Your task to perform on an android device: change notification settings in the gmail app Image 0: 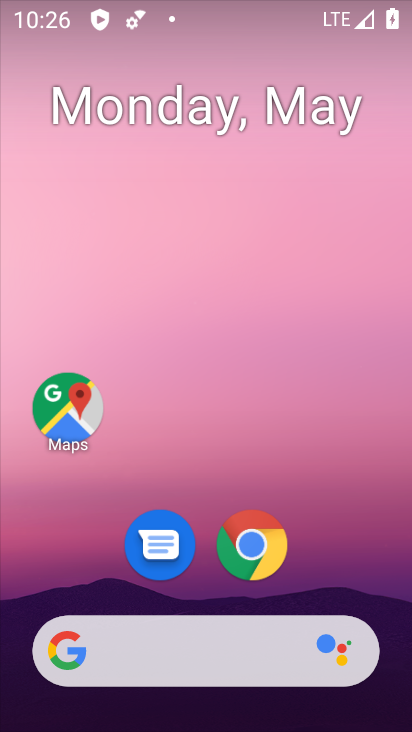
Step 0: drag from (342, 532) to (261, 83)
Your task to perform on an android device: change notification settings in the gmail app Image 1: 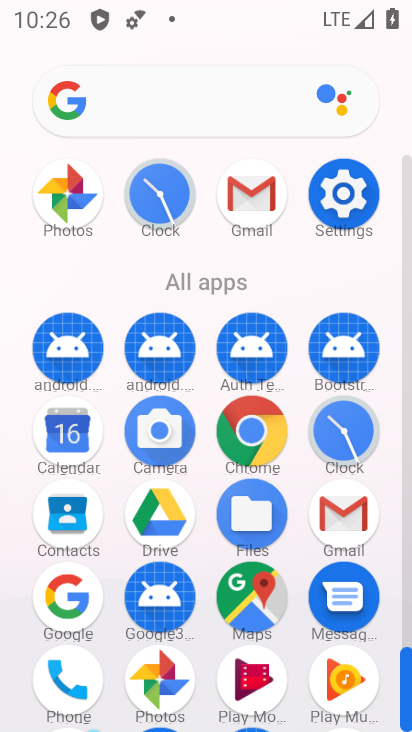
Step 1: click (254, 194)
Your task to perform on an android device: change notification settings in the gmail app Image 2: 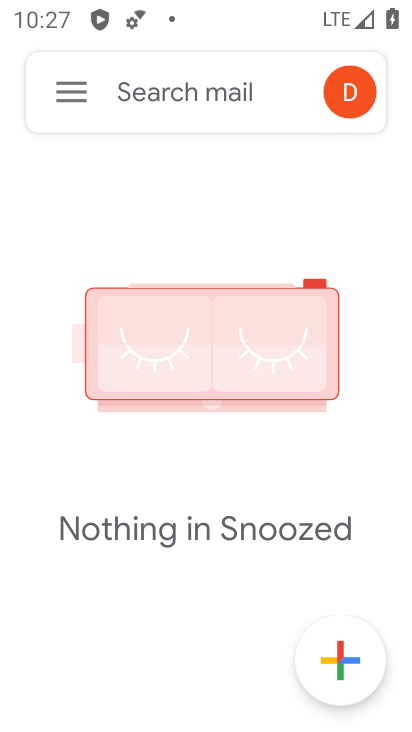
Step 2: click (81, 93)
Your task to perform on an android device: change notification settings in the gmail app Image 3: 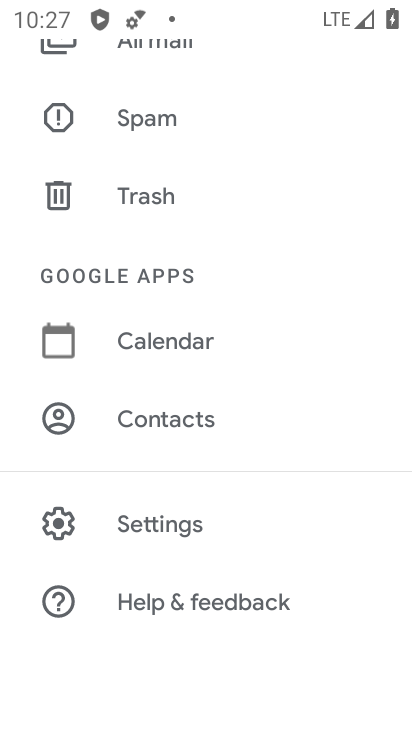
Step 3: click (164, 528)
Your task to perform on an android device: change notification settings in the gmail app Image 4: 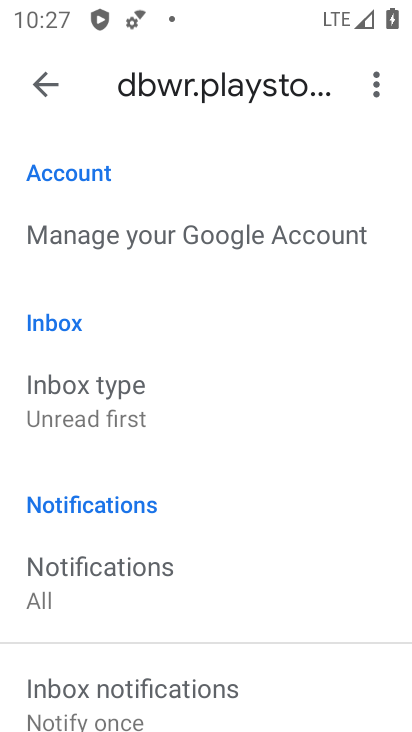
Step 4: drag from (187, 462) to (266, 315)
Your task to perform on an android device: change notification settings in the gmail app Image 5: 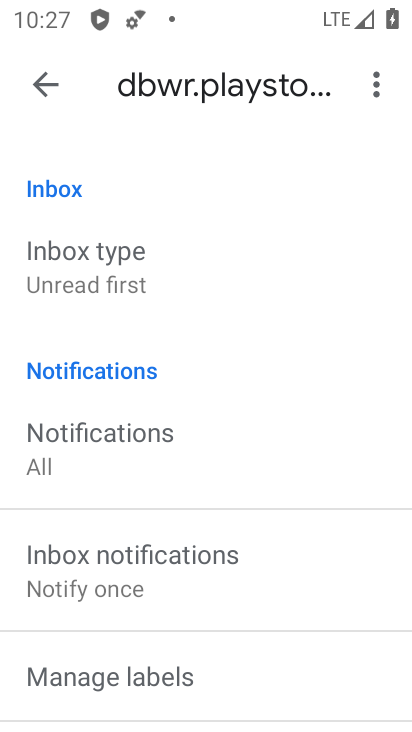
Step 5: drag from (157, 621) to (220, 496)
Your task to perform on an android device: change notification settings in the gmail app Image 6: 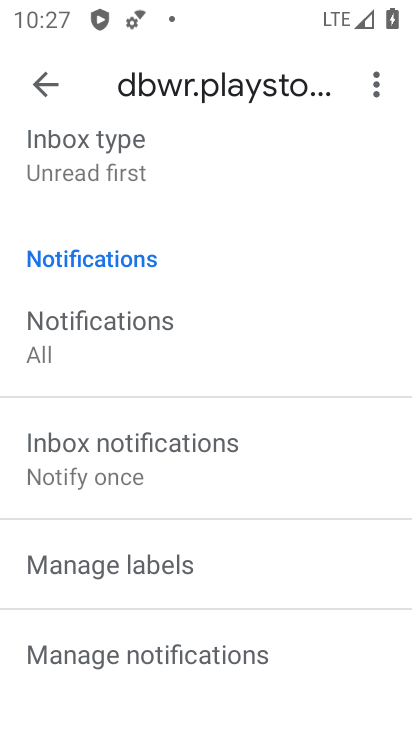
Step 6: click (171, 651)
Your task to perform on an android device: change notification settings in the gmail app Image 7: 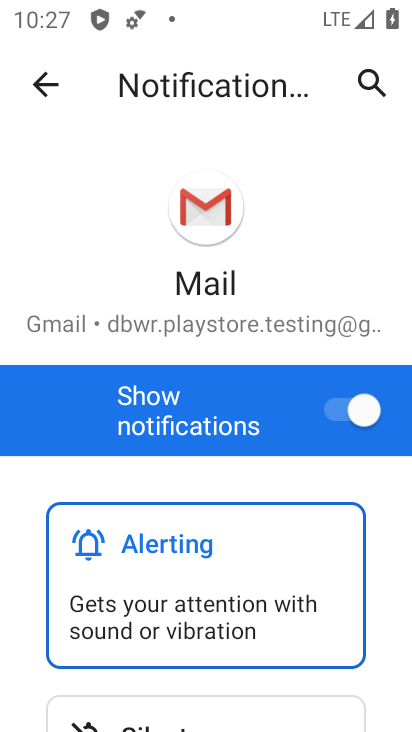
Step 7: click (350, 406)
Your task to perform on an android device: change notification settings in the gmail app Image 8: 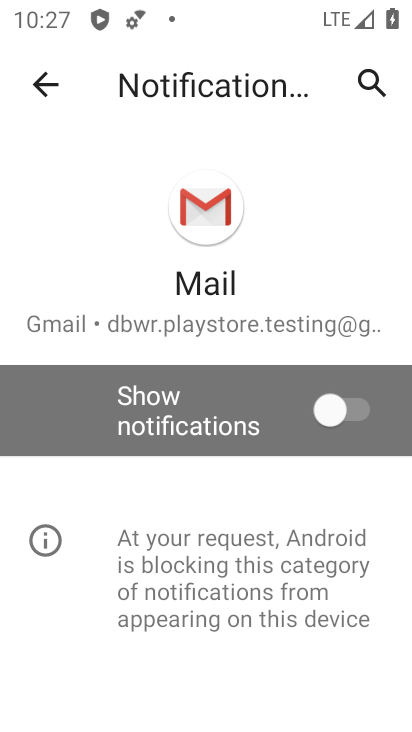
Step 8: task complete